Your task to perform on an android device: allow cookies in the chrome app Image 0: 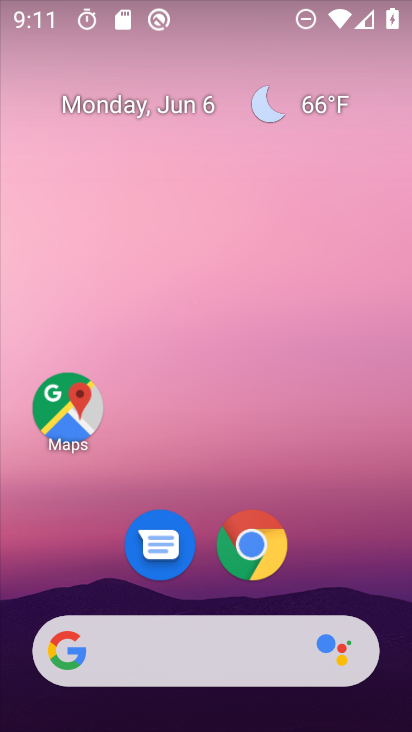
Step 0: drag from (215, 586) to (230, 213)
Your task to perform on an android device: allow cookies in the chrome app Image 1: 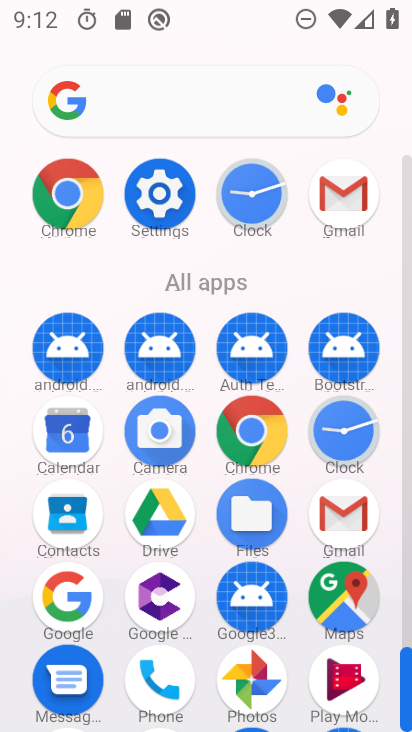
Step 1: click (257, 441)
Your task to perform on an android device: allow cookies in the chrome app Image 2: 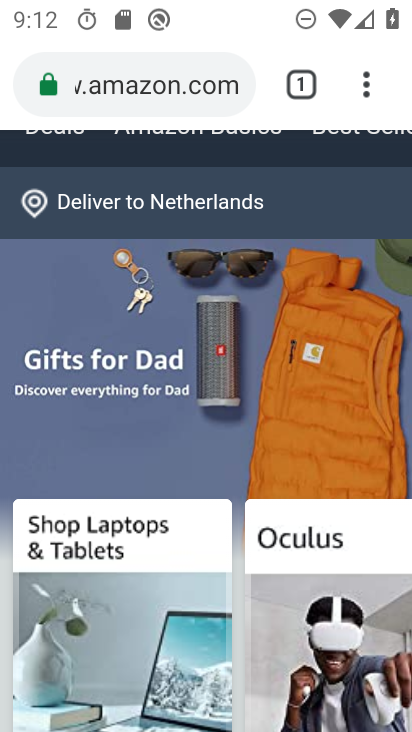
Step 2: click (362, 102)
Your task to perform on an android device: allow cookies in the chrome app Image 3: 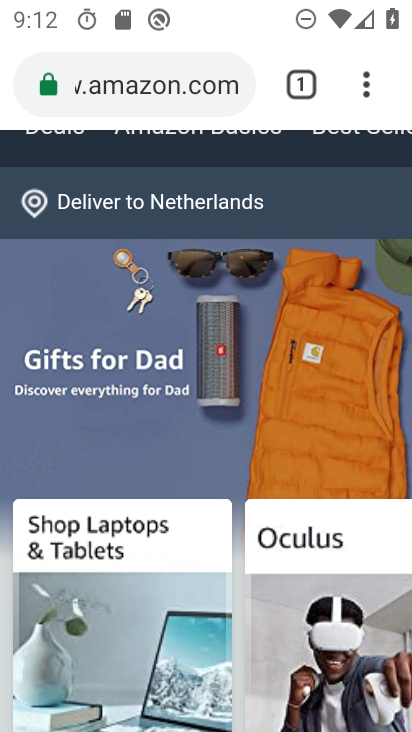
Step 3: click (358, 104)
Your task to perform on an android device: allow cookies in the chrome app Image 4: 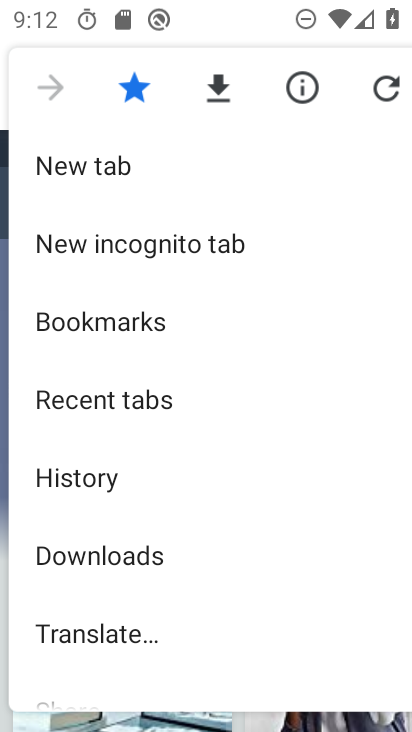
Step 4: drag from (129, 564) to (174, 278)
Your task to perform on an android device: allow cookies in the chrome app Image 5: 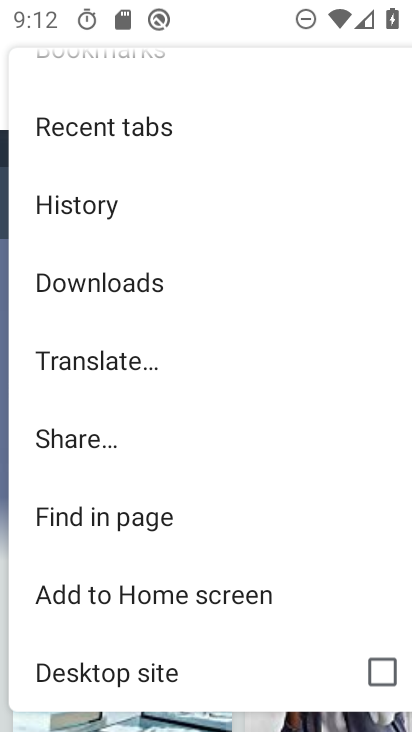
Step 5: drag from (118, 641) to (180, 335)
Your task to perform on an android device: allow cookies in the chrome app Image 6: 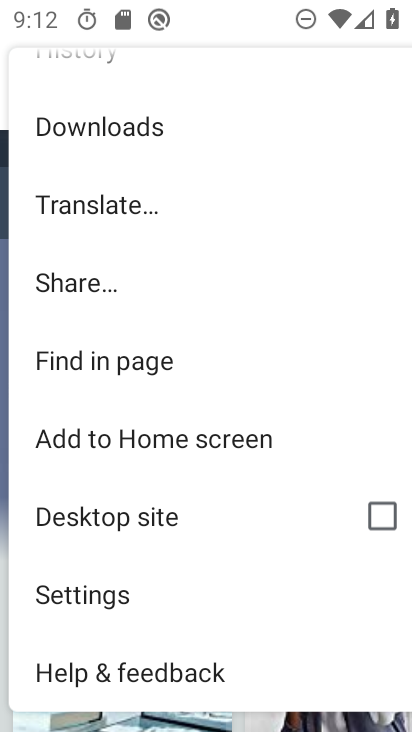
Step 6: click (108, 600)
Your task to perform on an android device: allow cookies in the chrome app Image 7: 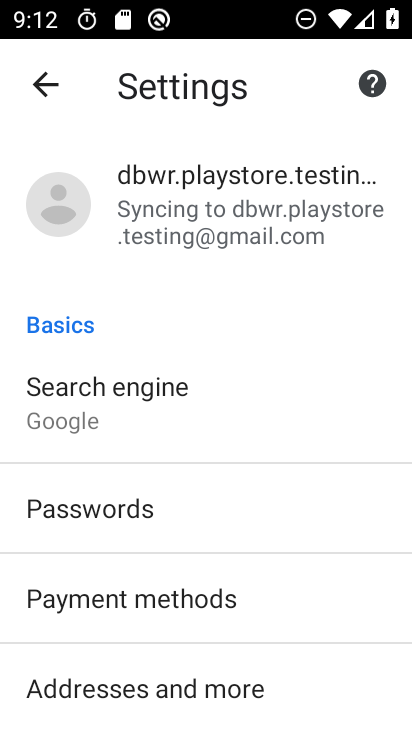
Step 7: drag from (180, 602) to (182, 132)
Your task to perform on an android device: allow cookies in the chrome app Image 8: 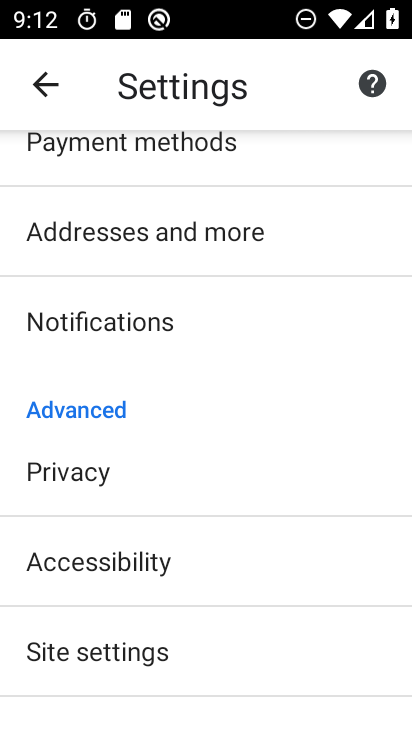
Step 8: drag from (140, 588) to (168, 457)
Your task to perform on an android device: allow cookies in the chrome app Image 9: 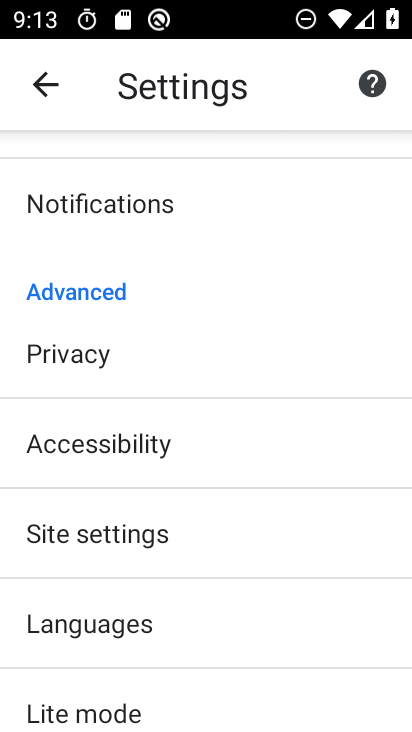
Step 9: click (132, 523)
Your task to perform on an android device: allow cookies in the chrome app Image 10: 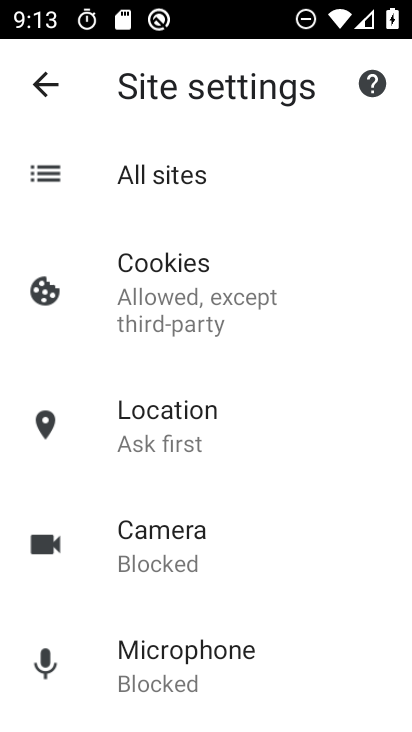
Step 10: click (188, 304)
Your task to perform on an android device: allow cookies in the chrome app Image 11: 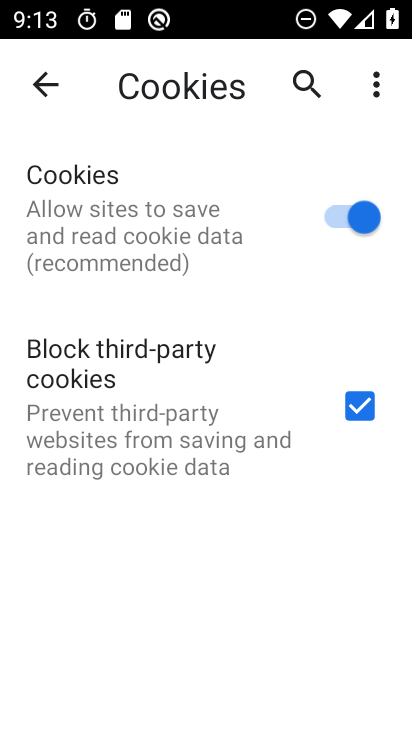
Step 11: task complete